Your task to perform on an android device: turn off javascript in the chrome app Image 0: 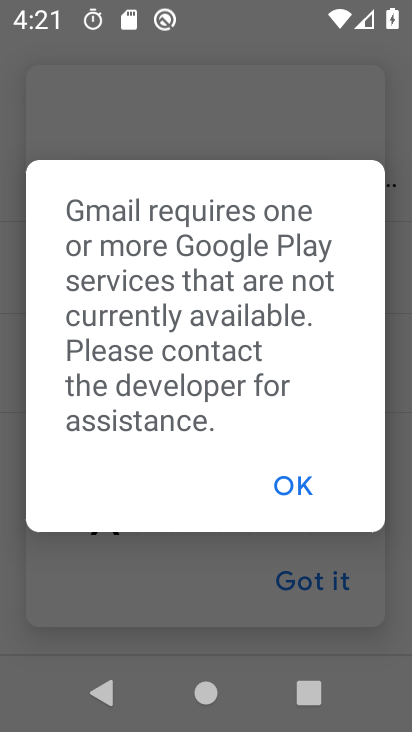
Step 0: press home button
Your task to perform on an android device: turn off javascript in the chrome app Image 1: 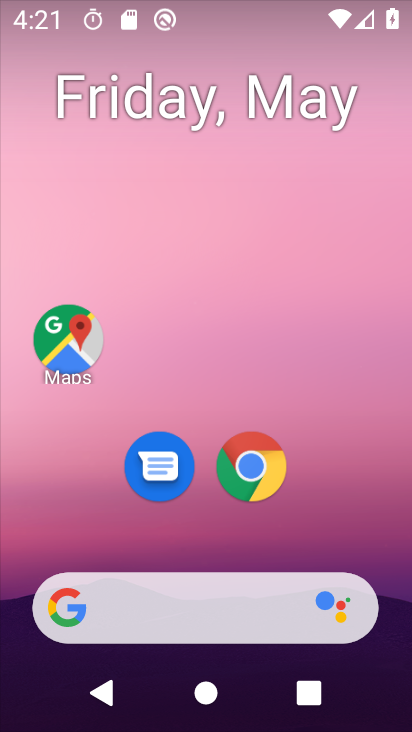
Step 1: click (249, 467)
Your task to perform on an android device: turn off javascript in the chrome app Image 2: 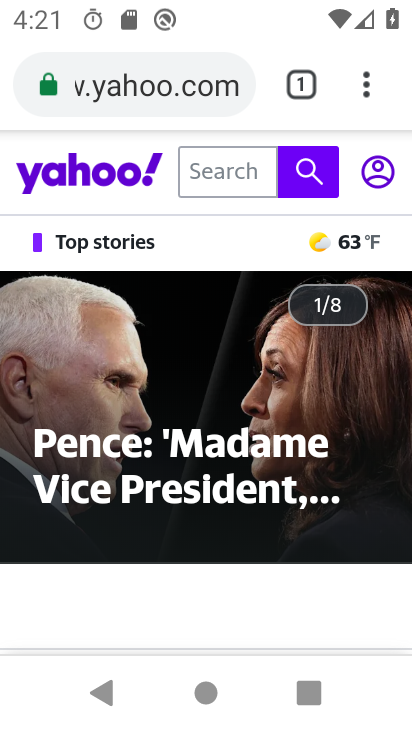
Step 2: click (369, 78)
Your task to perform on an android device: turn off javascript in the chrome app Image 3: 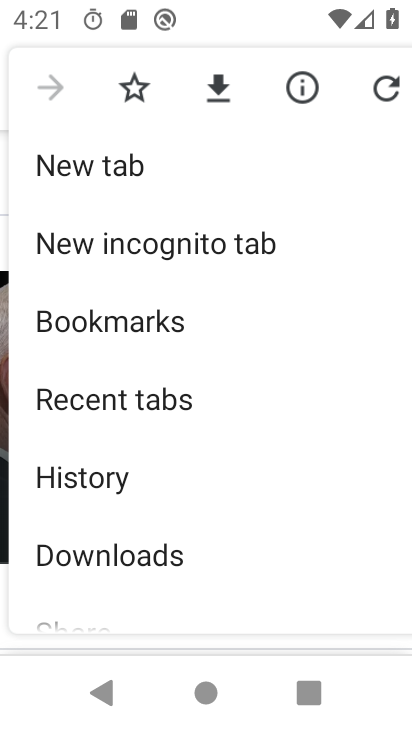
Step 3: drag from (332, 351) to (329, 239)
Your task to perform on an android device: turn off javascript in the chrome app Image 4: 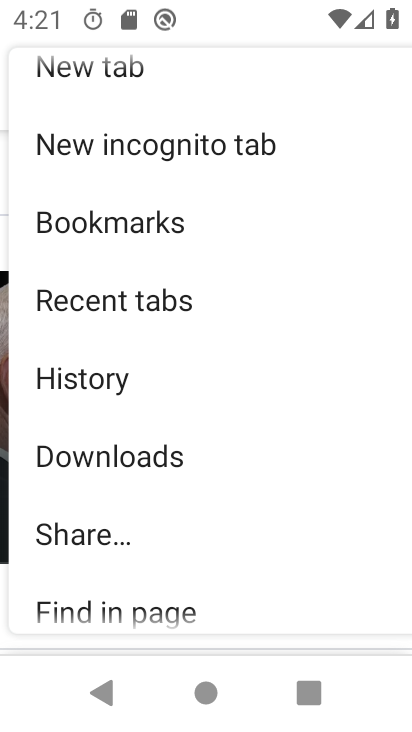
Step 4: drag from (328, 508) to (295, 241)
Your task to perform on an android device: turn off javascript in the chrome app Image 5: 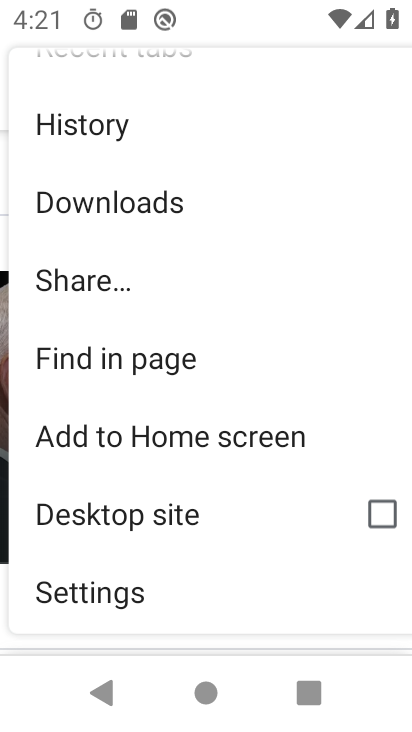
Step 5: click (87, 586)
Your task to perform on an android device: turn off javascript in the chrome app Image 6: 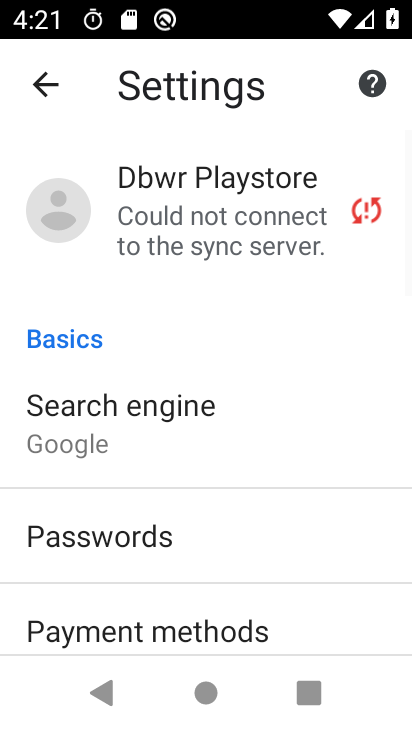
Step 6: drag from (301, 573) to (285, 313)
Your task to perform on an android device: turn off javascript in the chrome app Image 7: 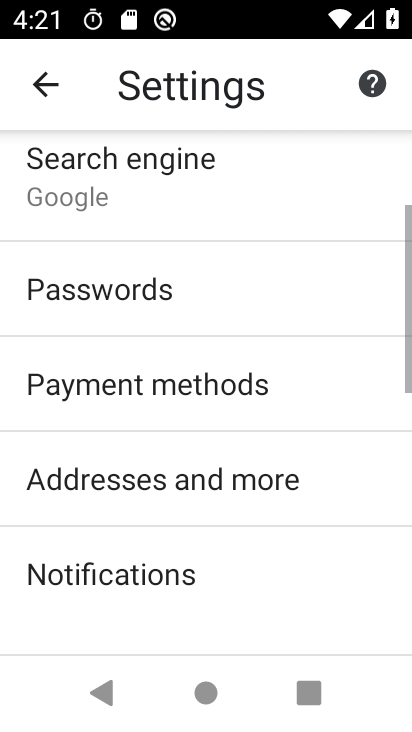
Step 7: drag from (285, 594) to (238, 359)
Your task to perform on an android device: turn off javascript in the chrome app Image 8: 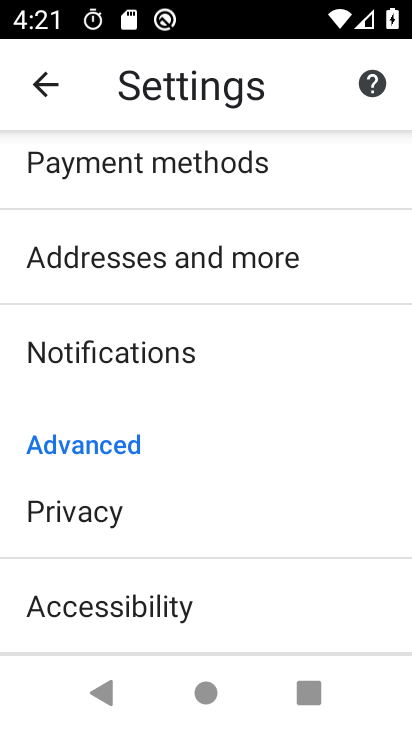
Step 8: drag from (232, 596) to (215, 304)
Your task to perform on an android device: turn off javascript in the chrome app Image 9: 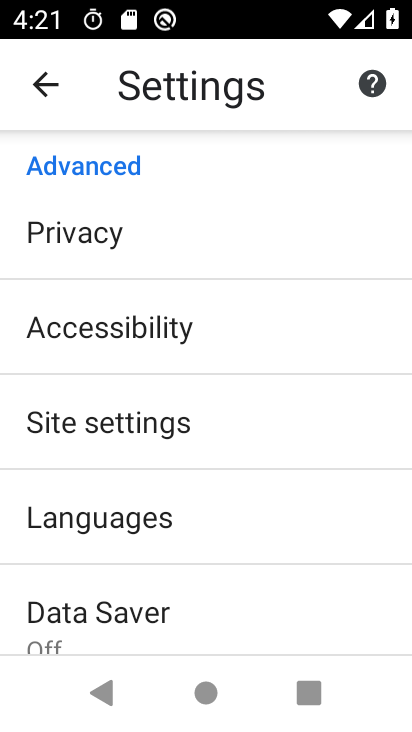
Step 9: click (89, 418)
Your task to perform on an android device: turn off javascript in the chrome app Image 10: 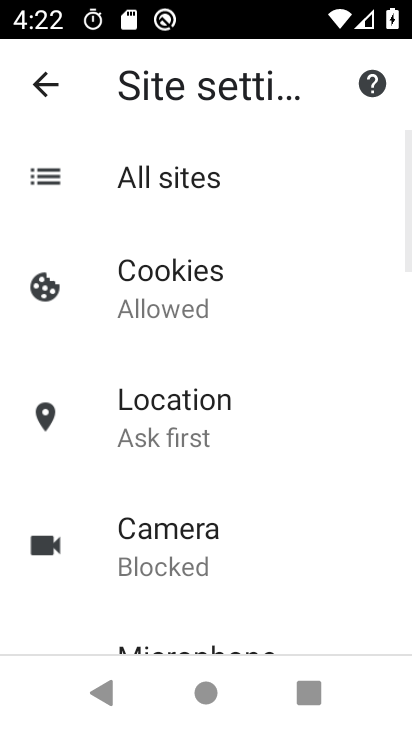
Step 10: drag from (297, 598) to (292, 387)
Your task to perform on an android device: turn off javascript in the chrome app Image 11: 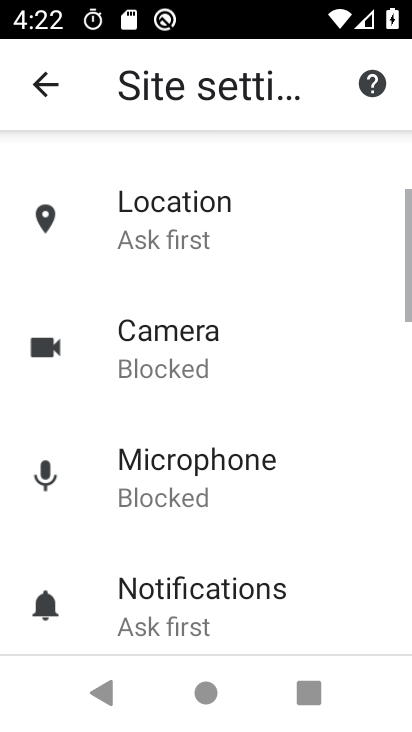
Step 11: drag from (317, 584) to (311, 345)
Your task to perform on an android device: turn off javascript in the chrome app Image 12: 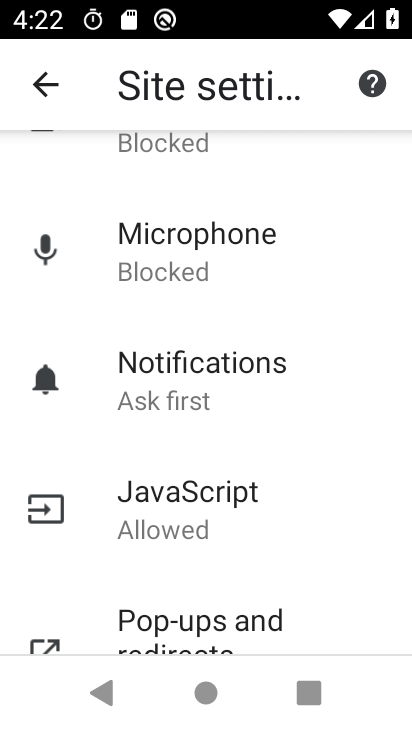
Step 12: click (183, 515)
Your task to perform on an android device: turn off javascript in the chrome app Image 13: 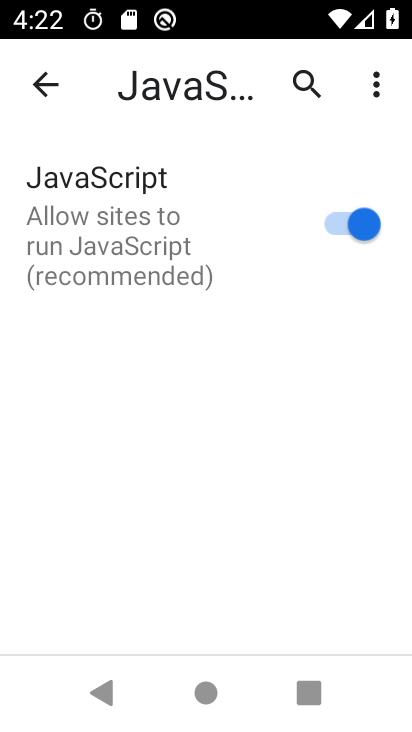
Step 13: click (336, 222)
Your task to perform on an android device: turn off javascript in the chrome app Image 14: 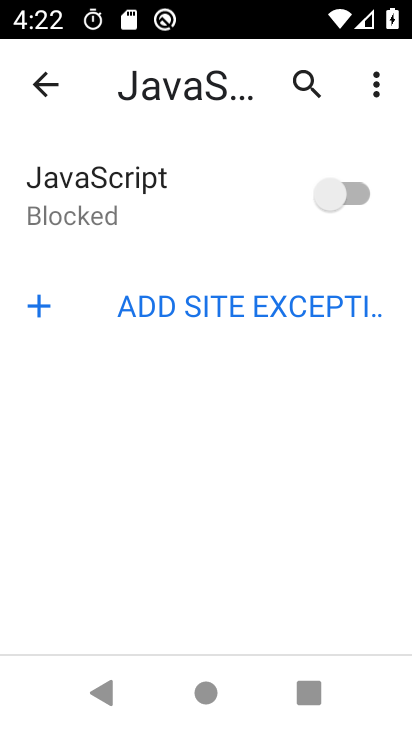
Step 14: task complete